Your task to perform on an android device: Turn off the flashlight Image 0: 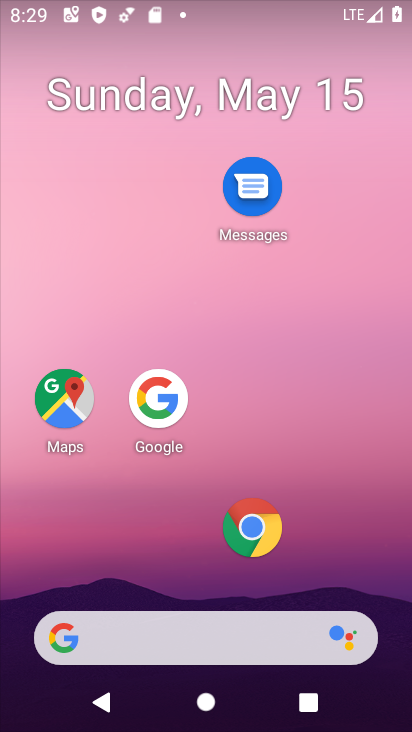
Step 0: drag from (211, 210) to (200, 424)
Your task to perform on an android device: Turn off the flashlight Image 1: 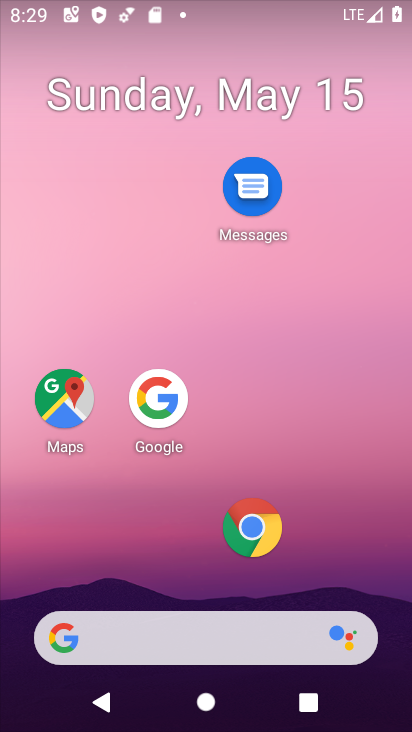
Step 1: task complete